Your task to perform on an android device: check battery use Image 0: 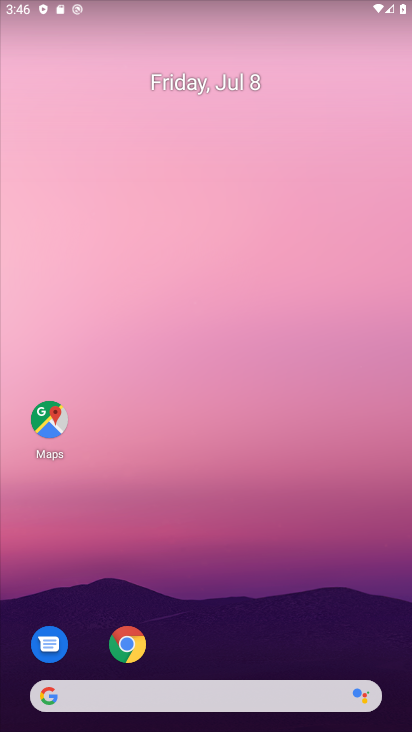
Step 0: press home button
Your task to perform on an android device: check battery use Image 1: 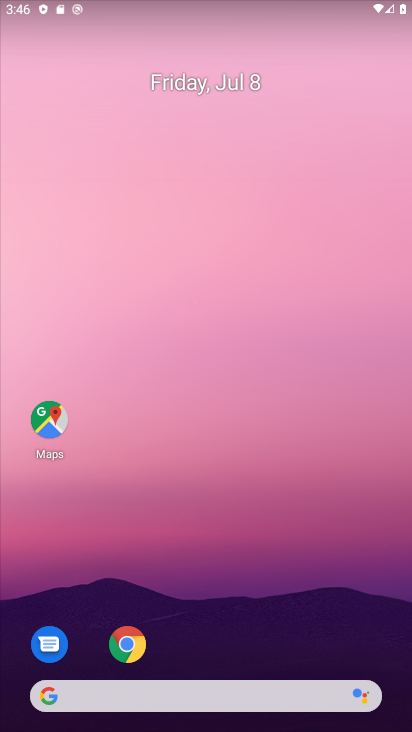
Step 1: drag from (314, 590) to (326, 17)
Your task to perform on an android device: check battery use Image 2: 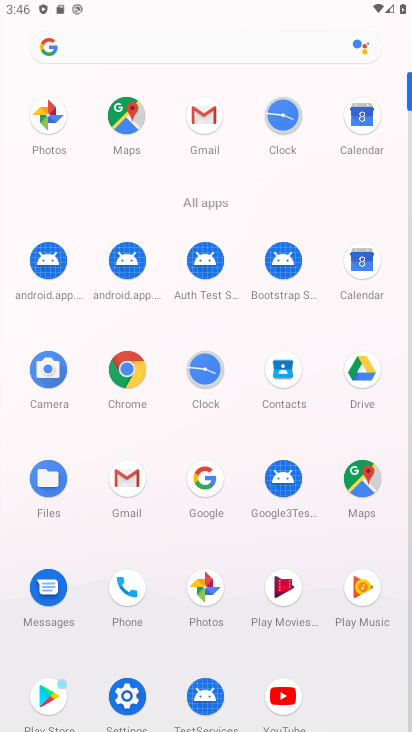
Step 2: click (125, 696)
Your task to perform on an android device: check battery use Image 3: 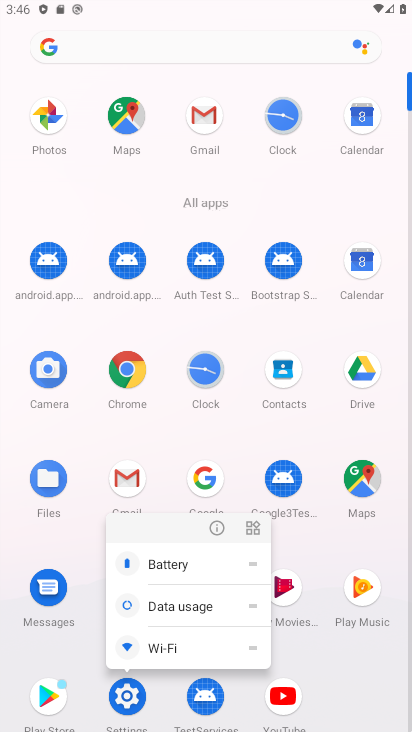
Step 3: click (118, 697)
Your task to perform on an android device: check battery use Image 4: 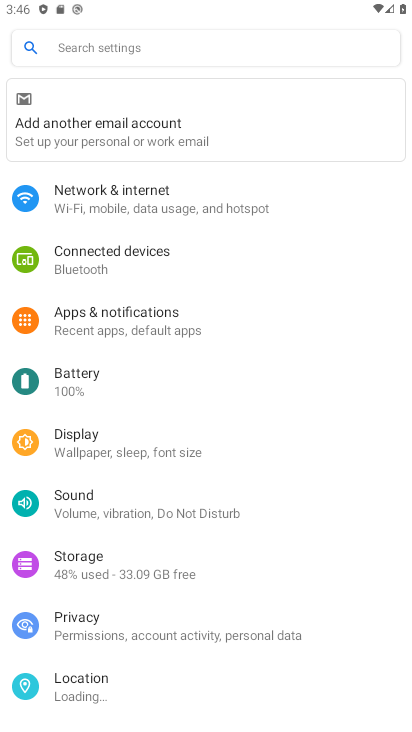
Step 4: click (79, 385)
Your task to perform on an android device: check battery use Image 5: 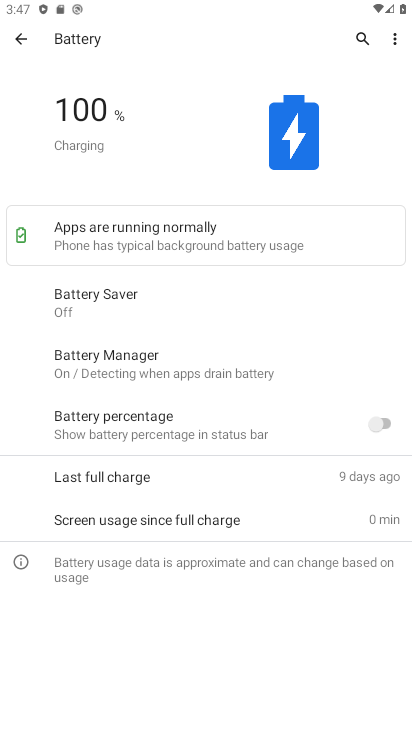
Step 5: task complete